Your task to perform on an android device: change text size in settings app Image 0: 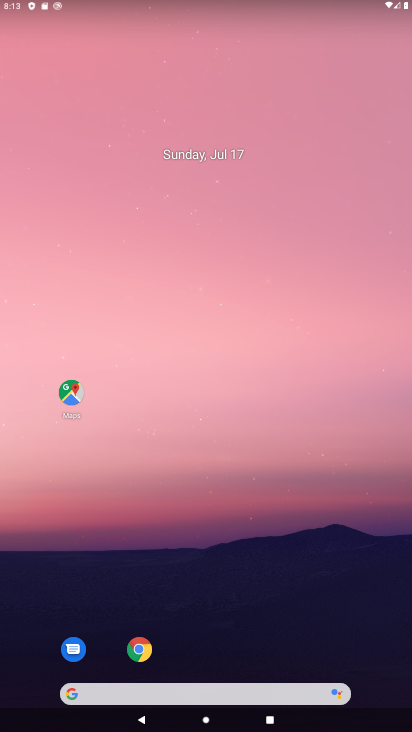
Step 0: click (204, 285)
Your task to perform on an android device: change text size in settings app Image 1: 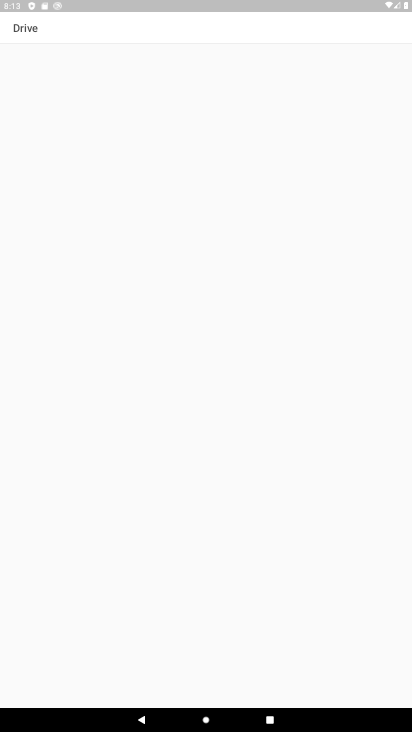
Step 1: press home button
Your task to perform on an android device: change text size in settings app Image 2: 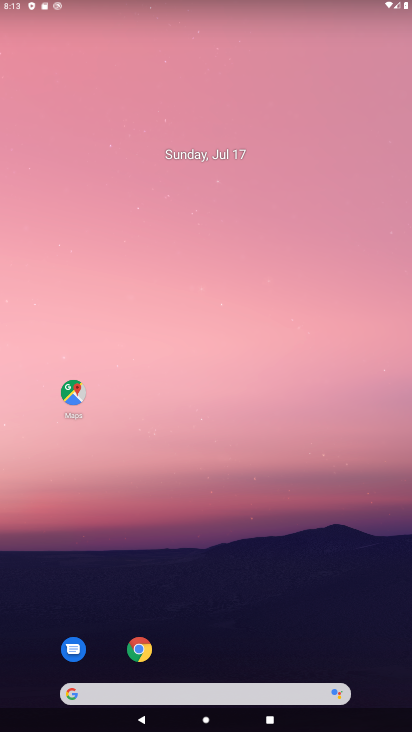
Step 2: drag from (206, 661) to (191, 80)
Your task to perform on an android device: change text size in settings app Image 3: 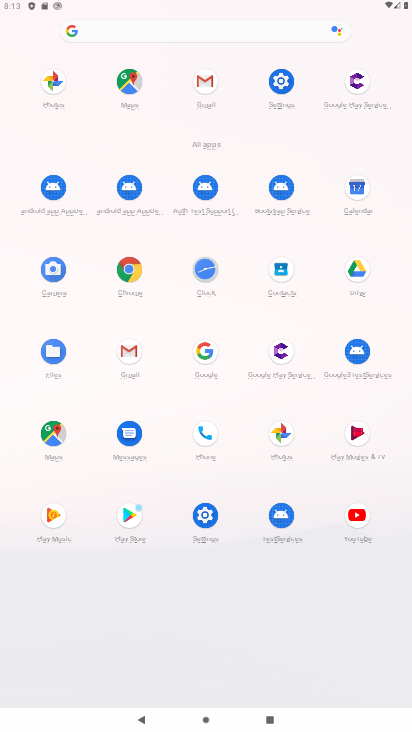
Step 3: click (284, 81)
Your task to perform on an android device: change text size in settings app Image 4: 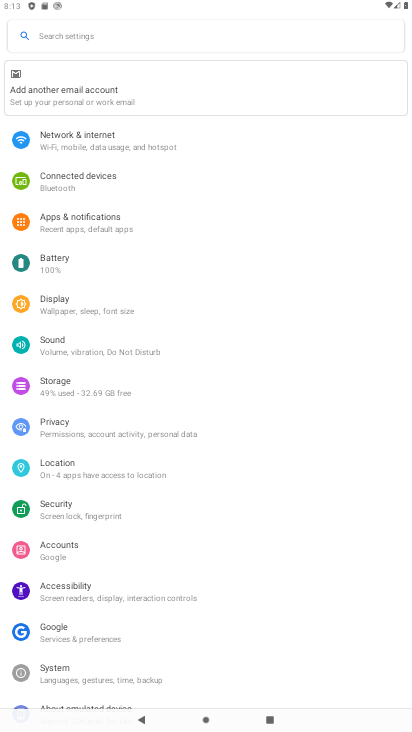
Step 4: drag from (98, 616) to (103, 345)
Your task to perform on an android device: change text size in settings app Image 5: 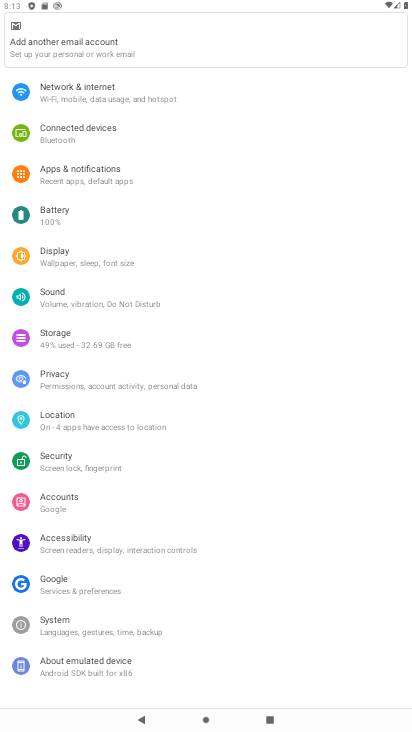
Step 5: click (99, 259)
Your task to perform on an android device: change text size in settings app Image 6: 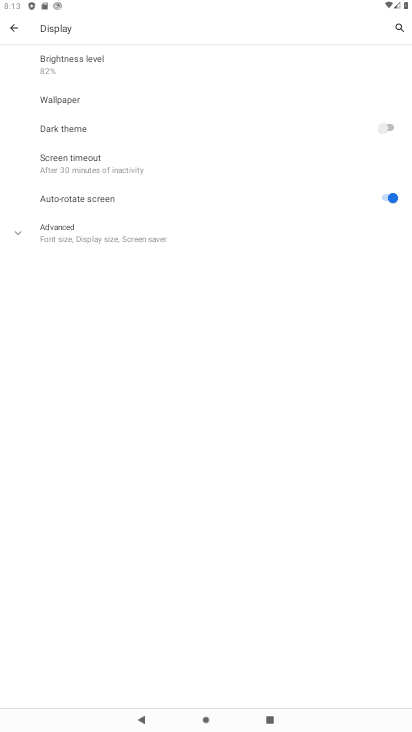
Step 6: click (63, 230)
Your task to perform on an android device: change text size in settings app Image 7: 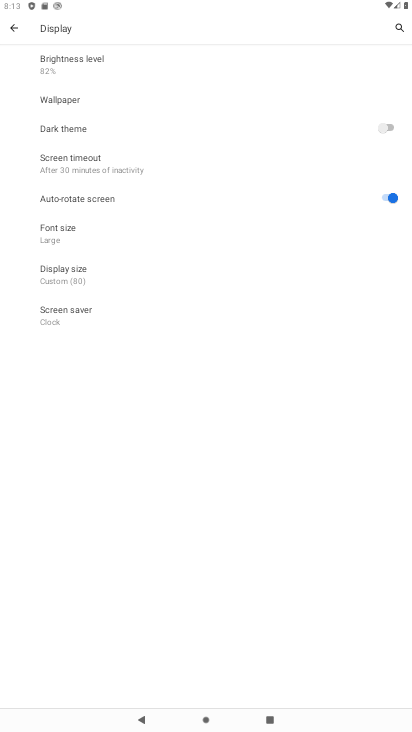
Step 7: click (82, 228)
Your task to perform on an android device: change text size in settings app Image 8: 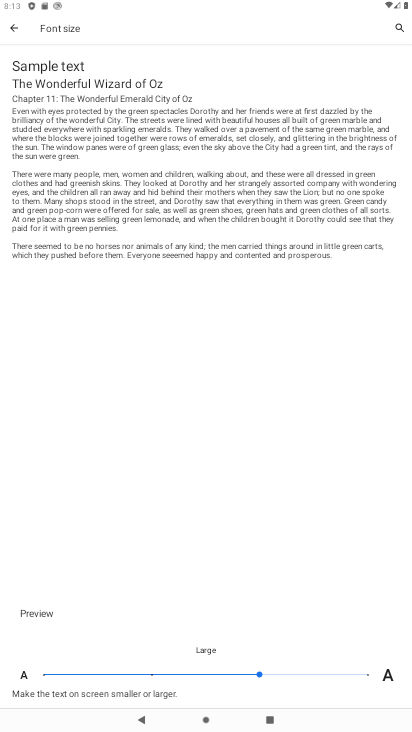
Step 8: task complete